Your task to perform on an android device: Search for vegetarian restaurants on Maps Image 0: 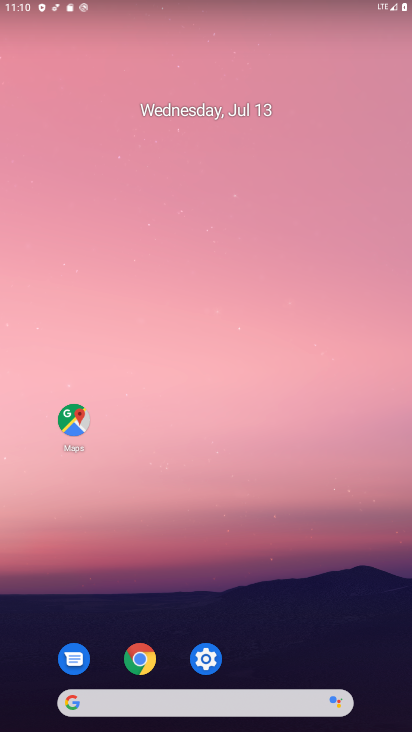
Step 0: drag from (289, 700) to (141, 118)
Your task to perform on an android device: Search for vegetarian restaurants on Maps Image 1: 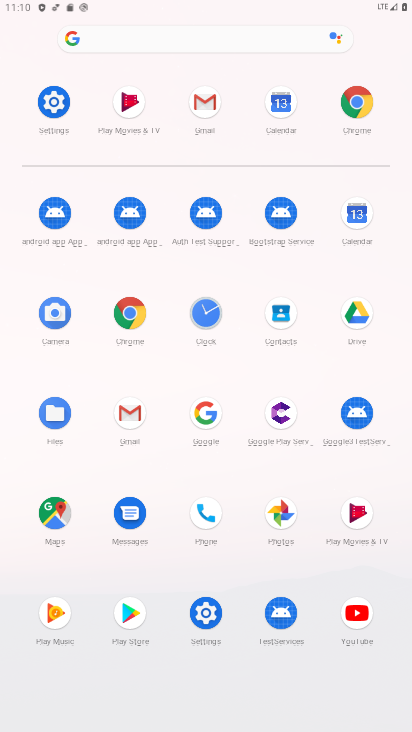
Step 1: click (55, 511)
Your task to perform on an android device: Search for vegetarian restaurants on Maps Image 2: 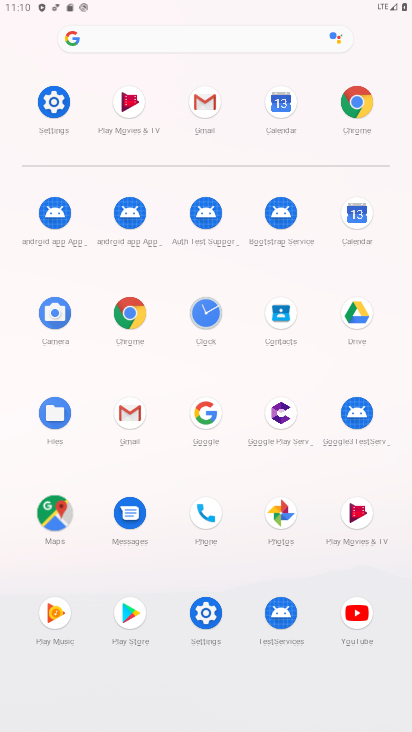
Step 2: click (55, 511)
Your task to perform on an android device: Search for vegetarian restaurants on Maps Image 3: 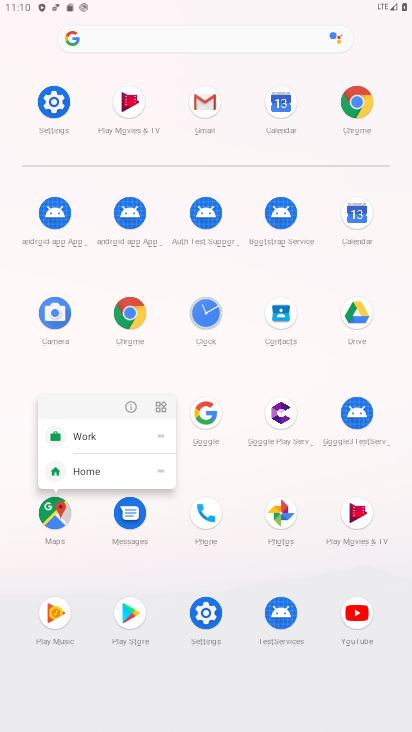
Step 3: click (54, 510)
Your task to perform on an android device: Search for vegetarian restaurants on Maps Image 4: 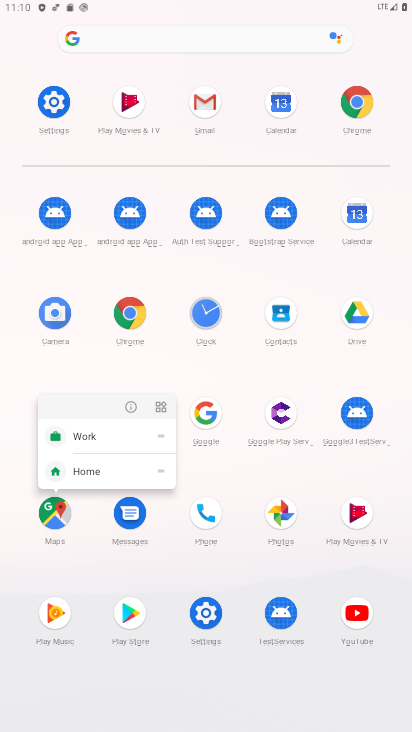
Step 4: click (57, 510)
Your task to perform on an android device: Search for vegetarian restaurants on Maps Image 5: 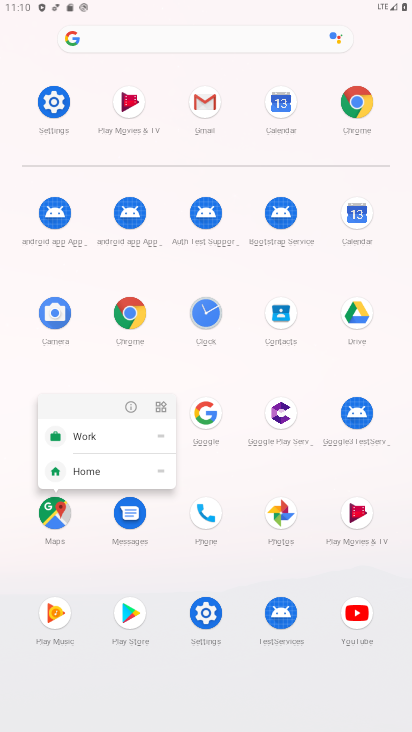
Step 5: click (58, 506)
Your task to perform on an android device: Search for vegetarian restaurants on Maps Image 6: 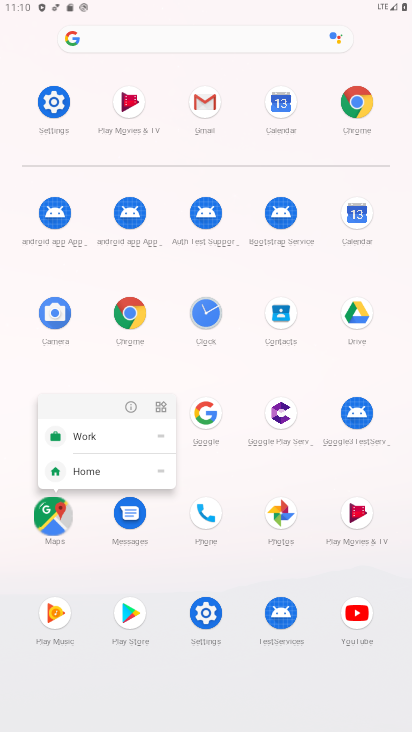
Step 6: click (56, 509)
Your task to perform on an android device: Search for vegetarian restaurants on Maps Image 7: 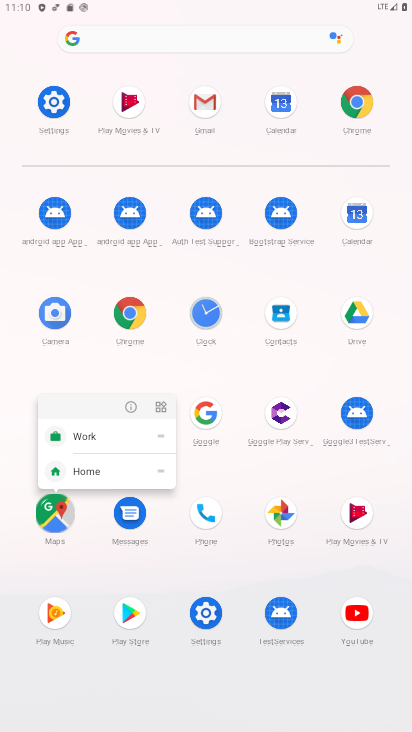
Step 7: click (59, 512)
Your task to perform on an android device: Search for vegetarian restaurants on Maps Image 8: 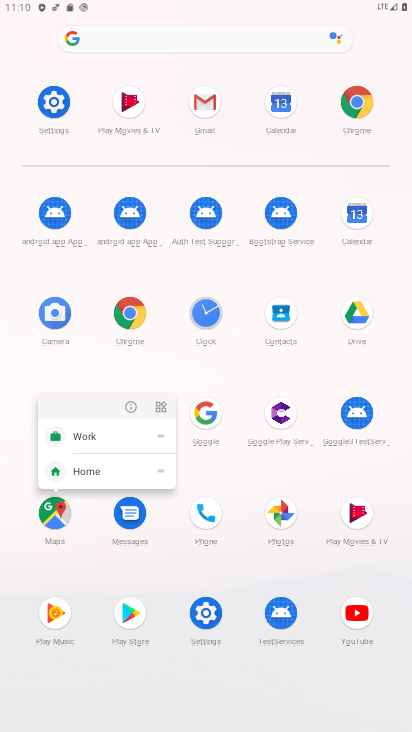
Step 8: click (46, 512)
Your task to perform on an android device: Search for vegetarian restaurants on Maps Image 9: 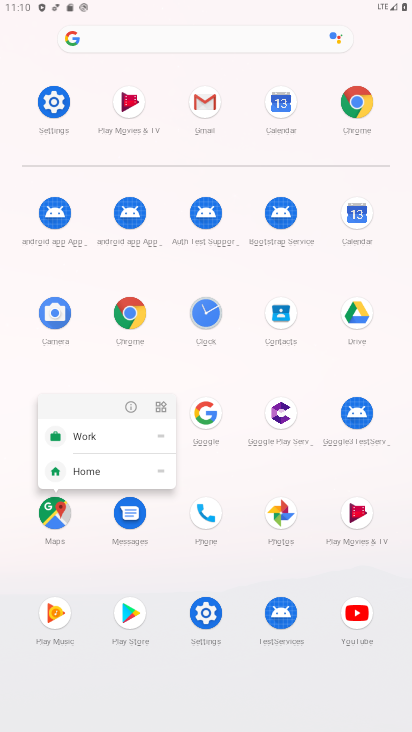
Step 9: click (49, 509)
Your task to perform on an android device: Search for vegetarian restaurants on Maps Image 10: 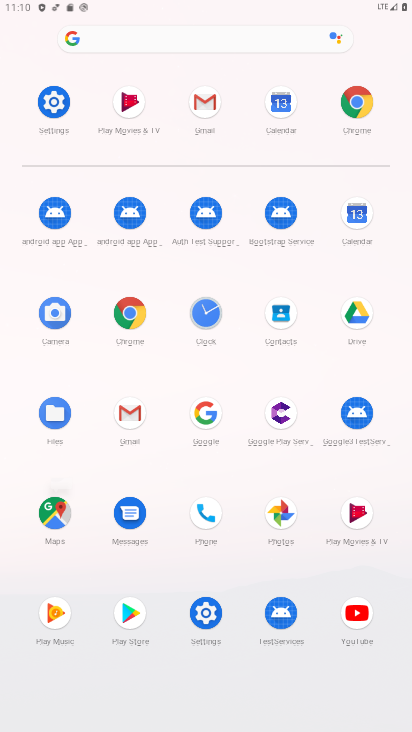
Step 10: click (53, 512)
Your task to perform on an android device: Search for vegetarian restaurants on Maps Image 11: 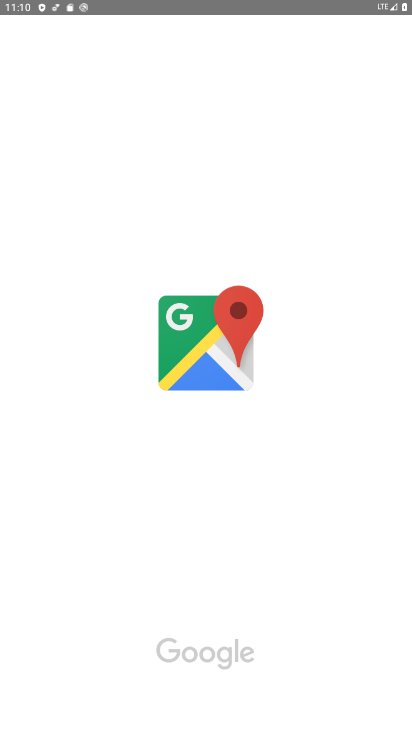
Step 11: click (61, 516)
Your task to perform on an android device: Search for vegetarian restaurants on Maps Image 12: 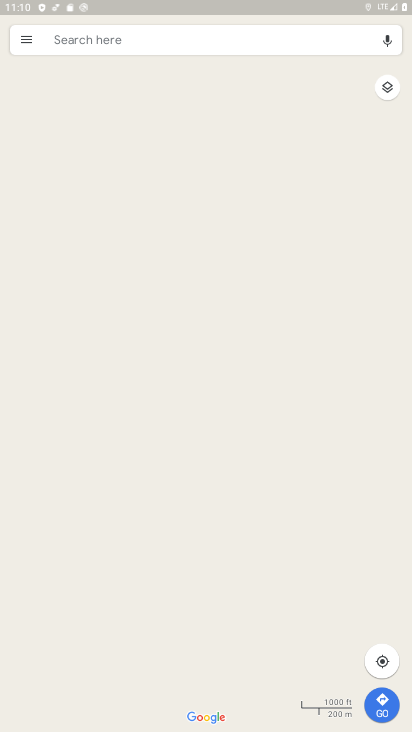
Step 12: click (65, 44)
Your task to perform on an android device: Search for vegetarian restaurants on Maps Image 13: 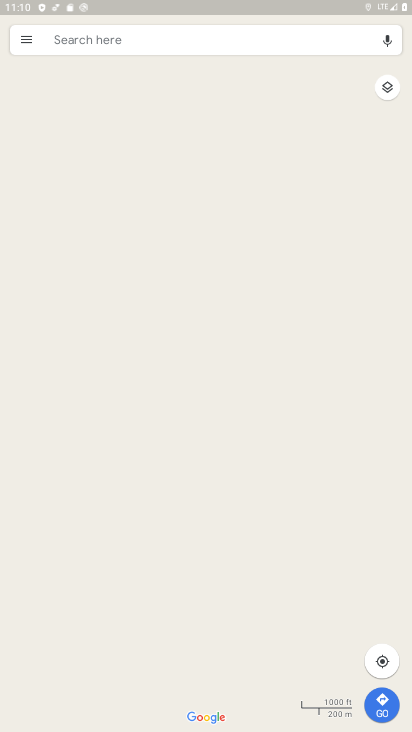
Step 13: click (65, 37)
Your task to perform on an android device: Search for vegetarian restaurants on Maps Image 14: 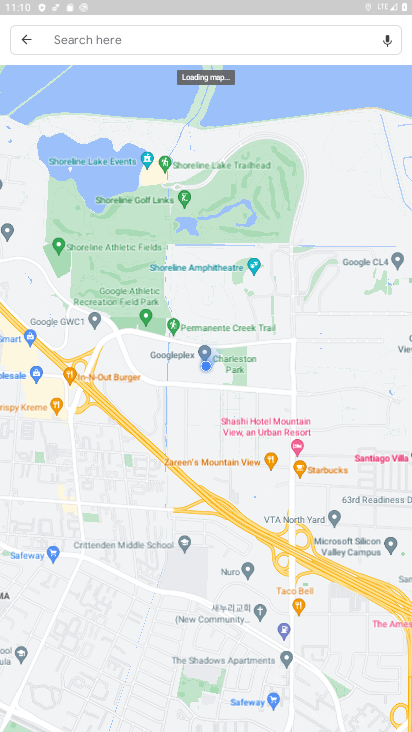
Step 14: click (73, 40)
Your task to perform on an android device: Search for vegetarian restaurants on Maps Image 15: 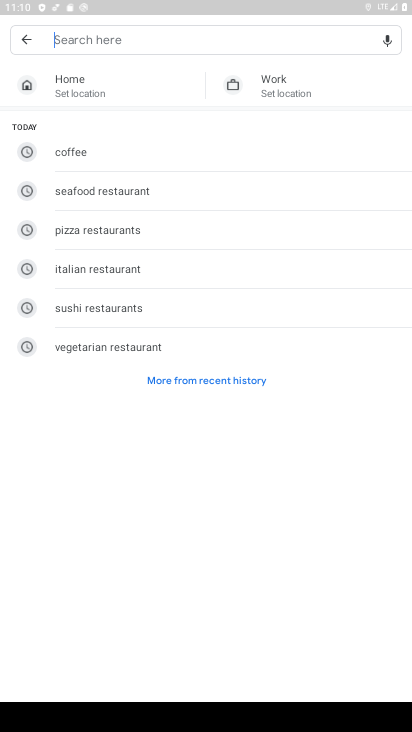
Step 15: click (123, 350)
Your task to perform on an android device: Search for vegetarian restaurants on Maps Image 16: 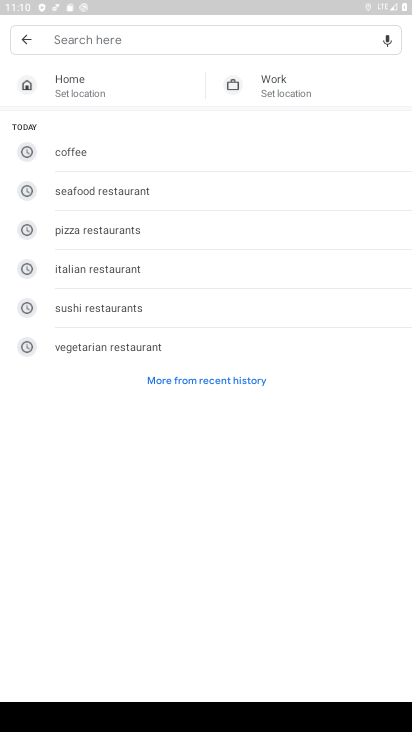
Step 16: click (132, 343)
Your task to perform on an android device: Search for vegetarian restaurants on Maps Image 17: 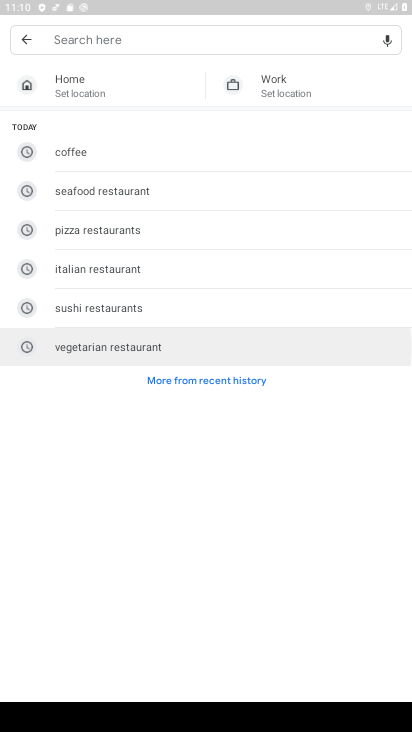
Step 17: click (134, 341)
Your task to perform on an android device: Search for vegetarian restaurants on Maps Image 18: 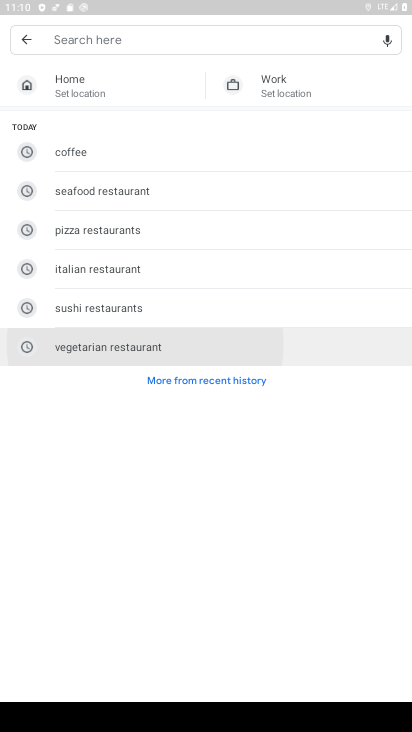
Step 18: click (134, 341)
Your task to perform on an android device: Search for vegetarian restaurants on Maps Image 19: 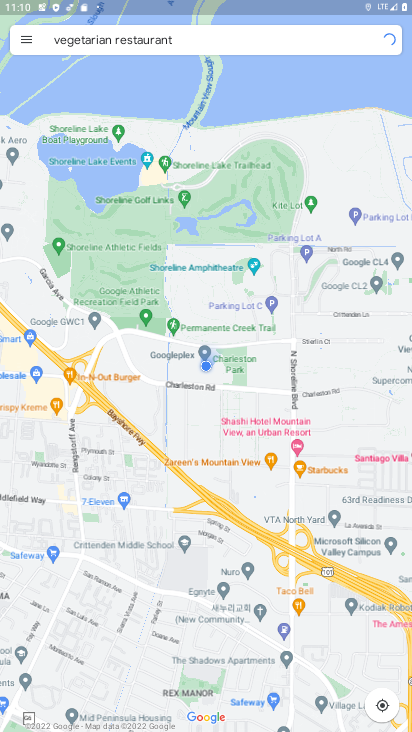
Step 19: click (134, 341)
Your task to perform on an android device: Search for vegetarian restaurants on Maps Image 20: 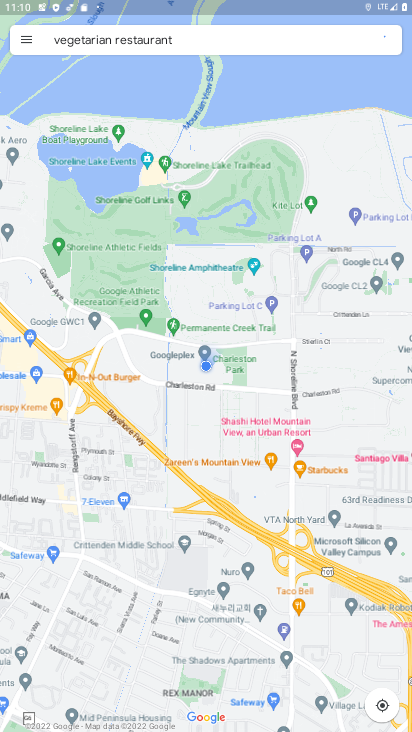
Step 20: task complete